Your task to perform on an android device: toggle wifi Image 0: 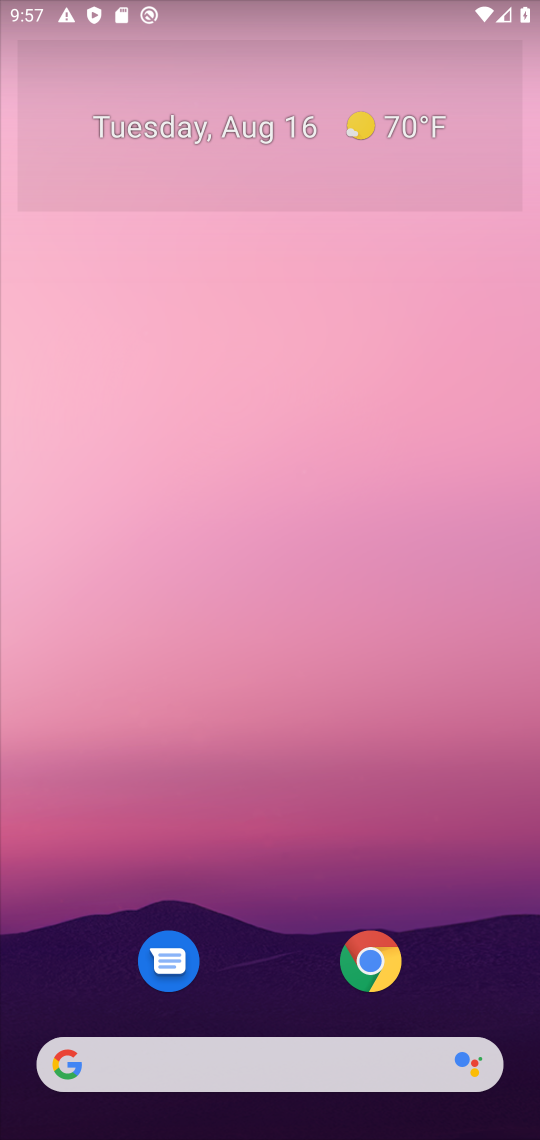
Step 0: drag from (248, 837) to (233, 39)
Your task to perform on an android device: toggle wifi Image 1: 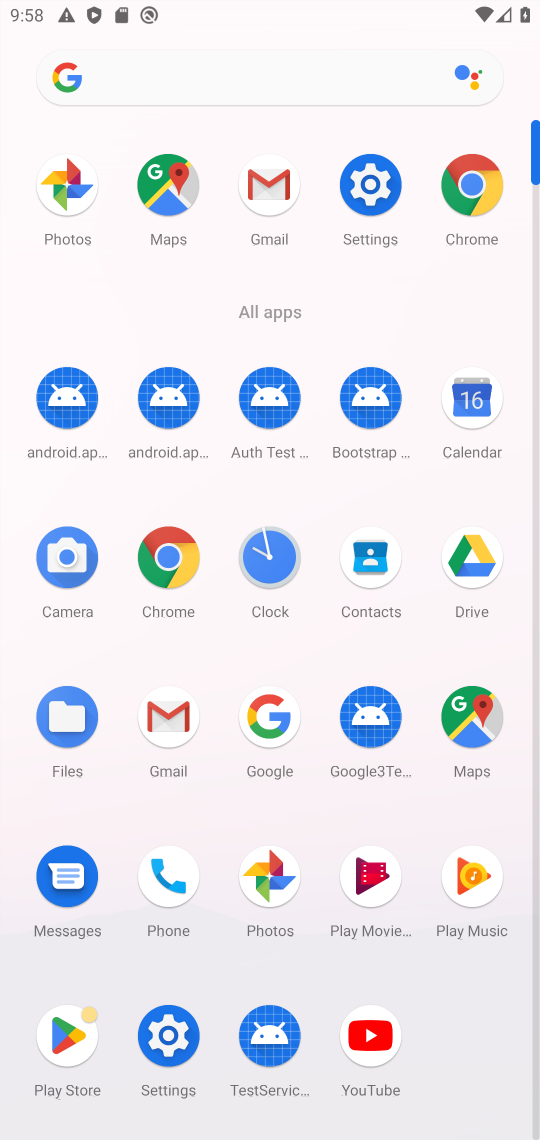
Step 1: click (376, 185)
Your task to perform on an android device: toggle wifi Image 2: 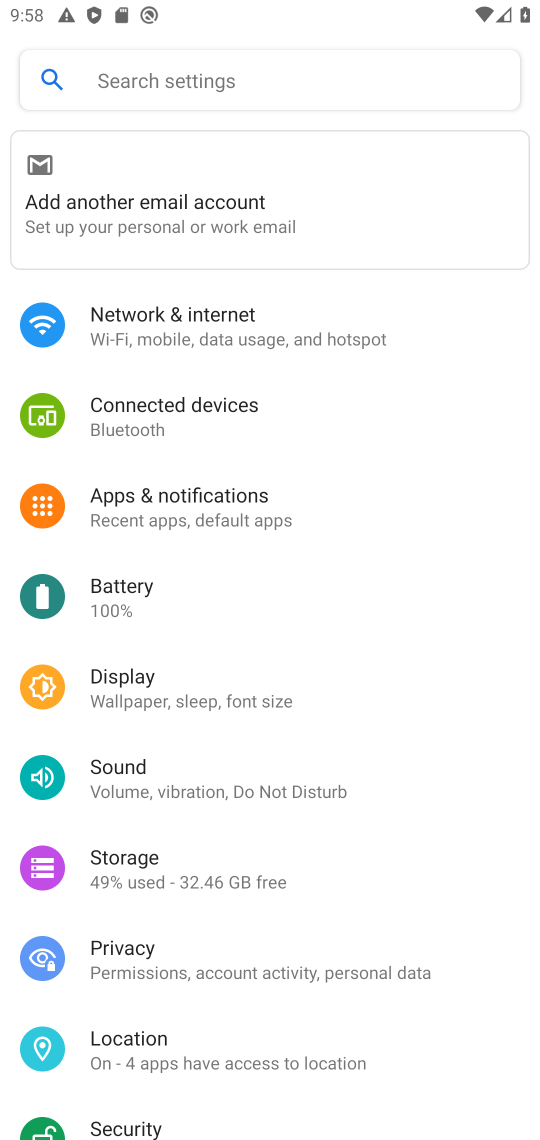
Step 2: task complete